Your task to perform on an android device: open app "Pinterest" (install if not already installed) Image 0: 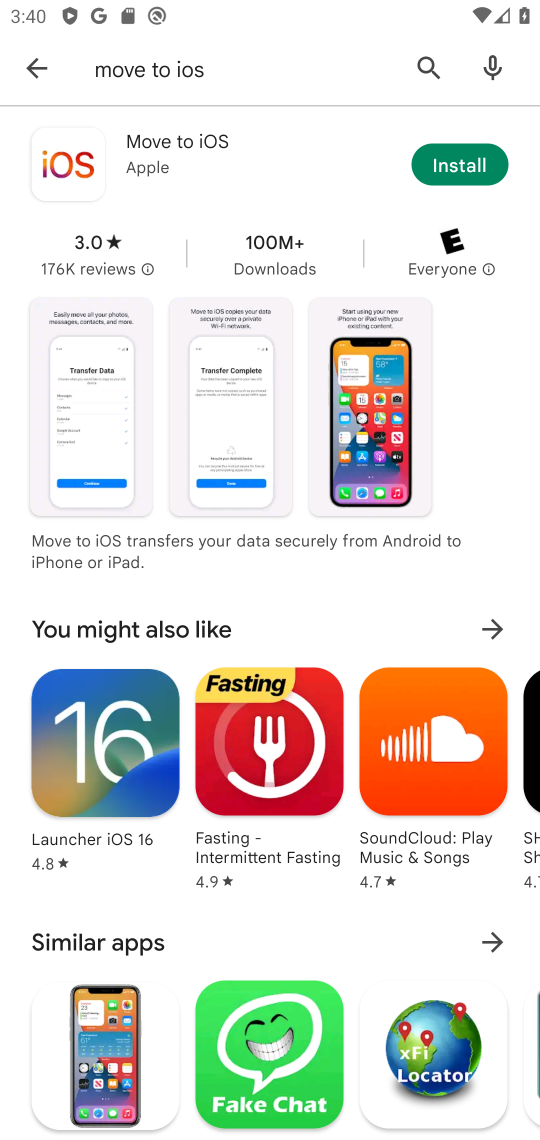
Step 0: press home button
Your task to perform on an android device: open app "Pinterest" (install if not already installed) Image 1: 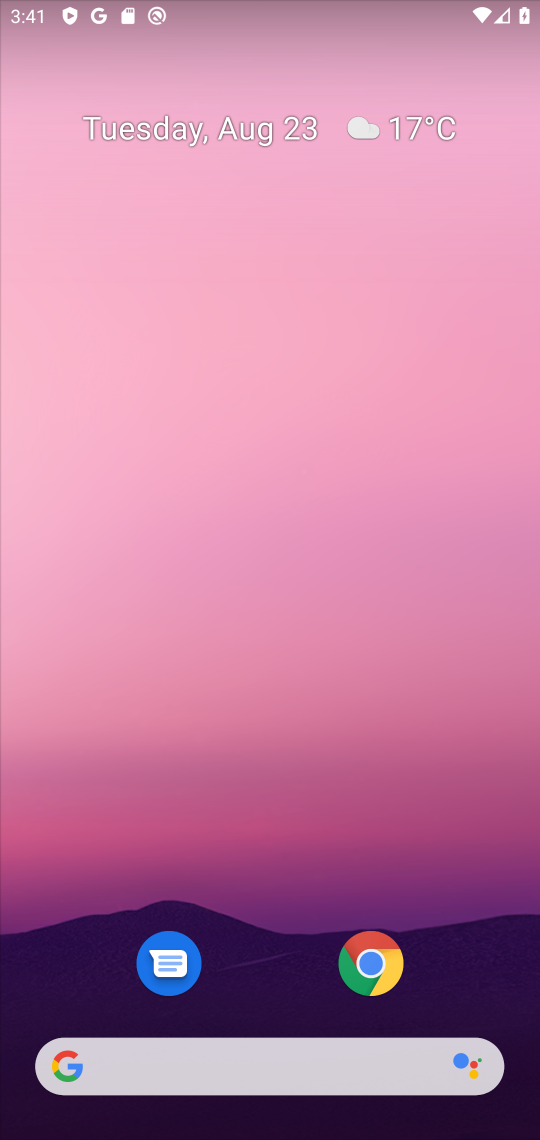
Step 1: drag from (288, 902) to (52, 8)
Your task to perform on an android device: open app "Pinterest" (install if not already installed) Image 2: 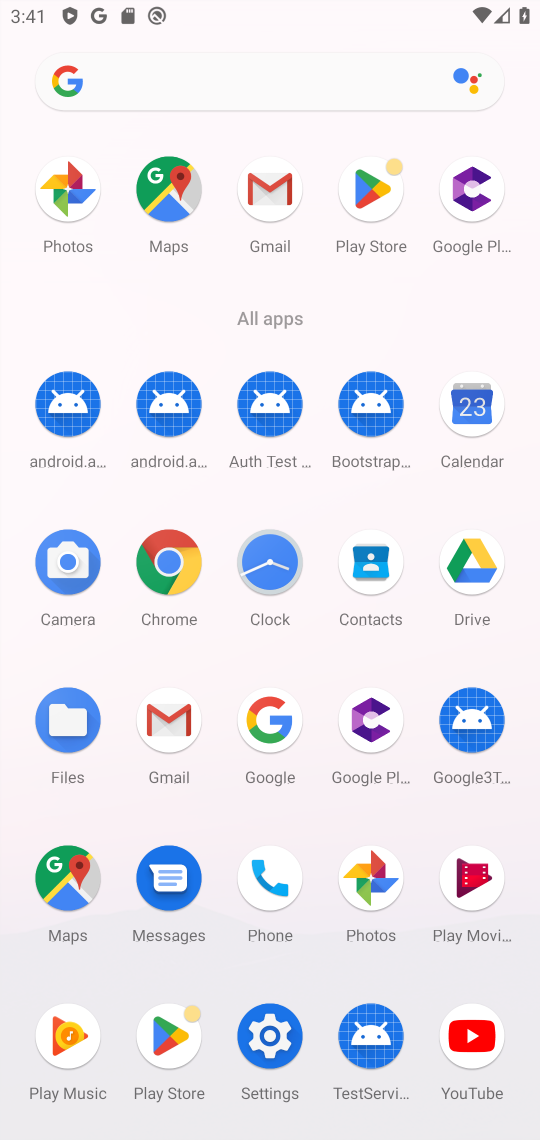
Step 2: click (366, 189)
Your task to perform on an android device: open app "Pinterest" (install if not already installed) Image 3: 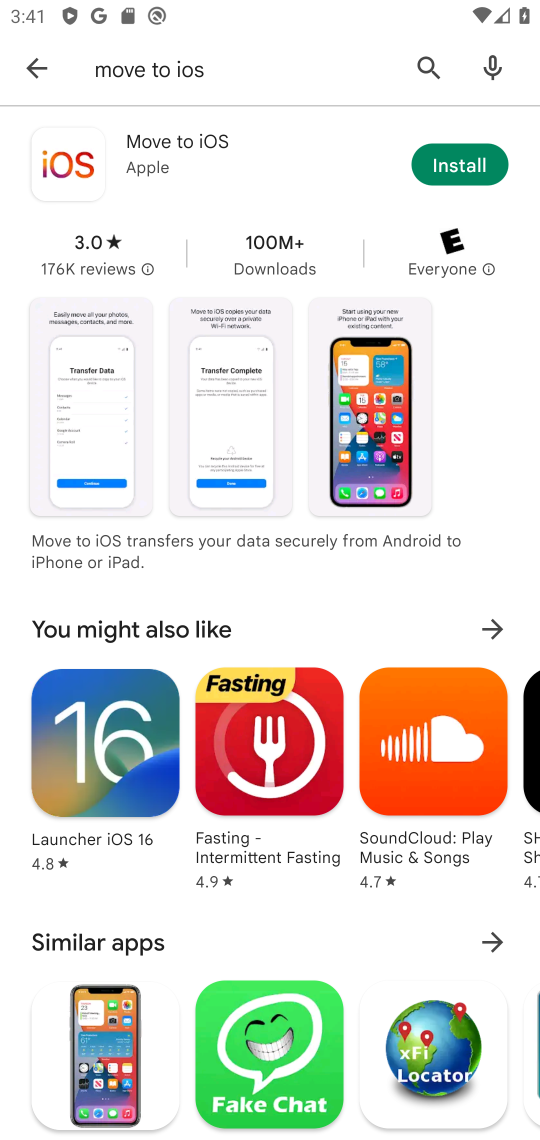
Step 3: click (421, 67)
Your task to perform on an android device: open app "Pinterest" (install if not already installed) Image 4: 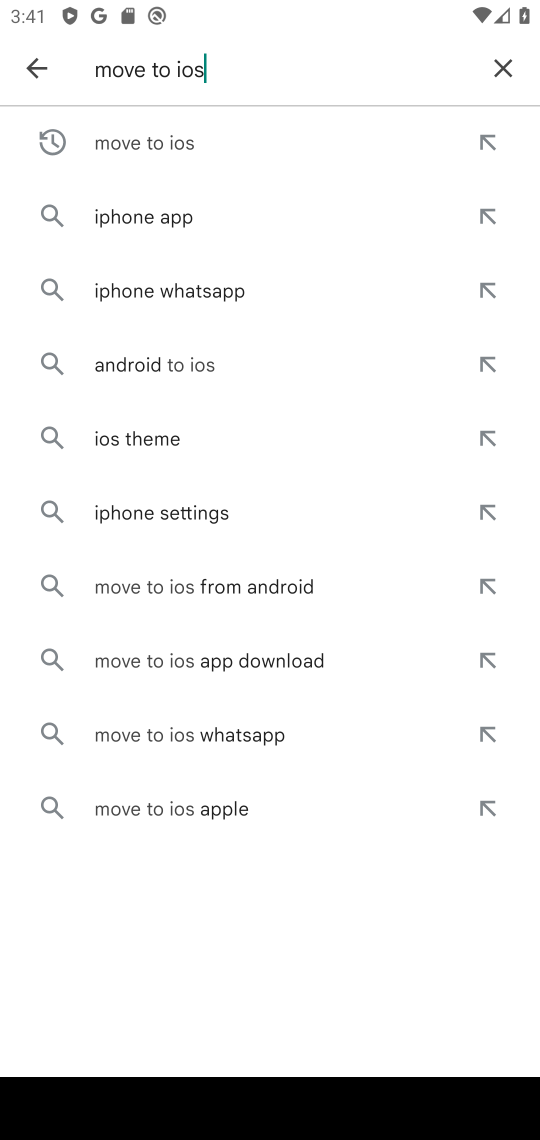
Step 4: click (496, 79)
Your task to perform on an android device: open app "Pinterest" (install if not already installed) Image 5: 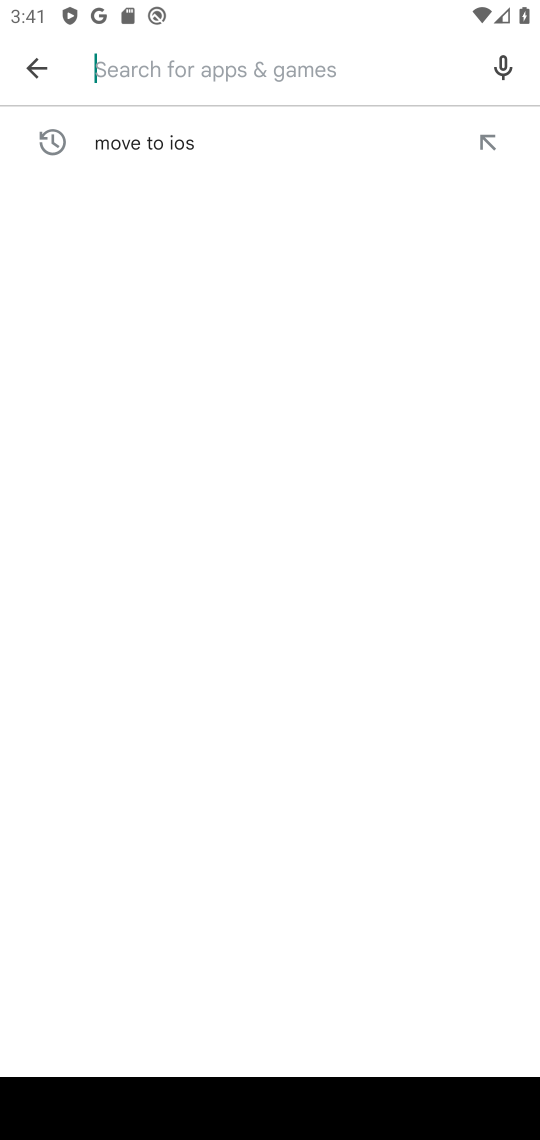
Step 5: type "Pinterest"
Your task to perform on an android device: open app "Pinterest" (install if not already installed) Image 6: 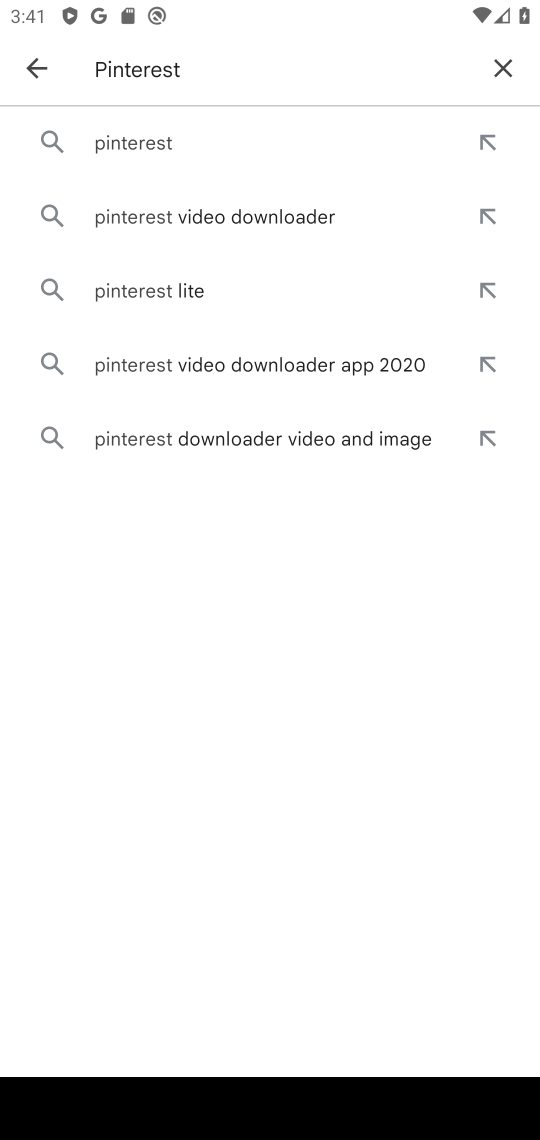
Step 6: click (99, 141)
Your task to perform on an android device: open app "Pinterest" (install if not already installed) Image 7: 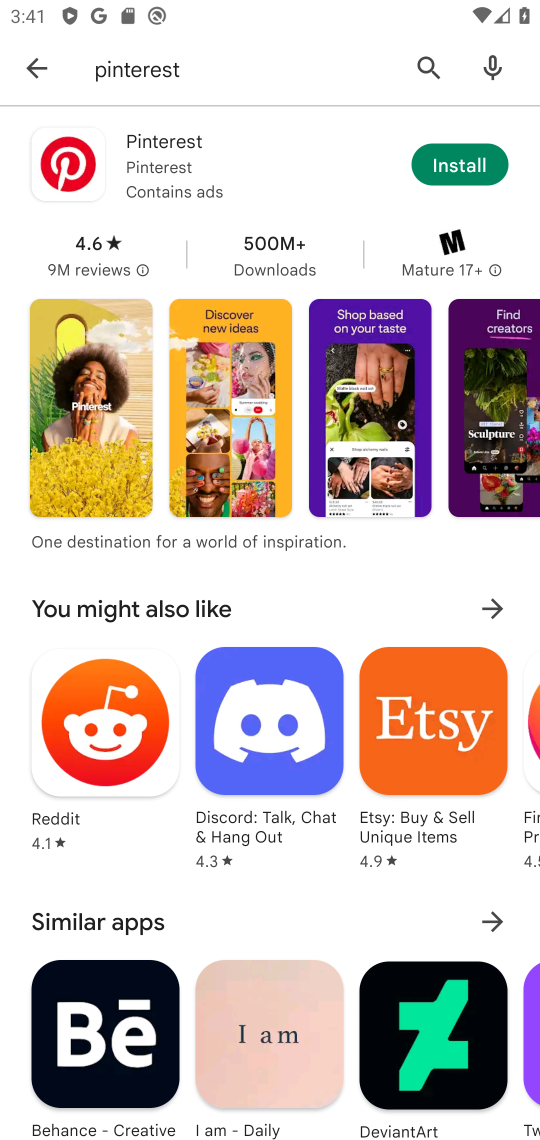
Step 7: click (440, 156)
Your task to perform on an android device: open app "Pinterest" (install if not already installed) Image 8: 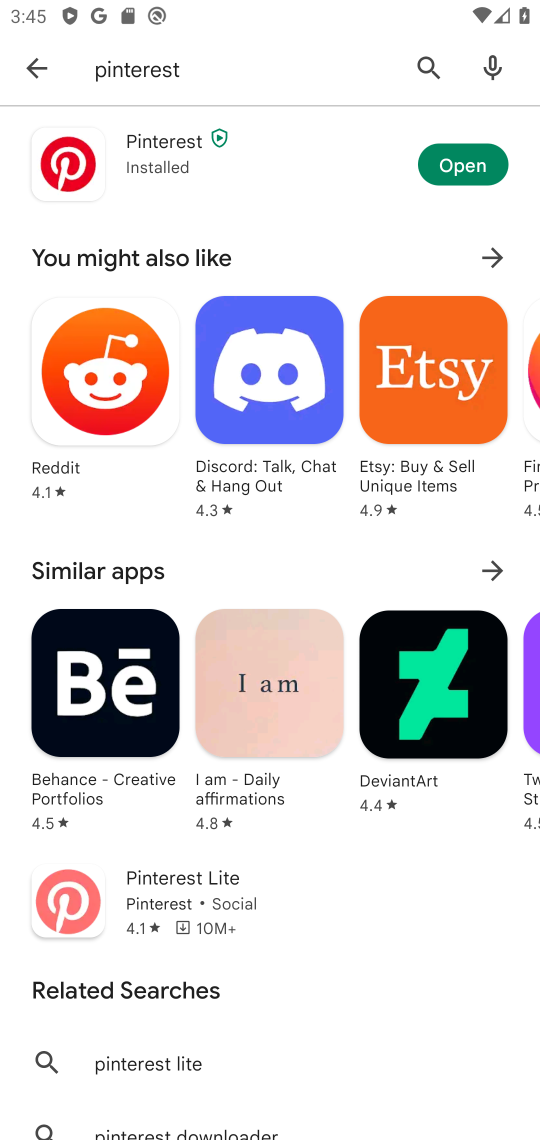
Step 8: click (453, 166)
Your task to perform on an android device: open app "Pinterest" (install if not already installed) Image 9: 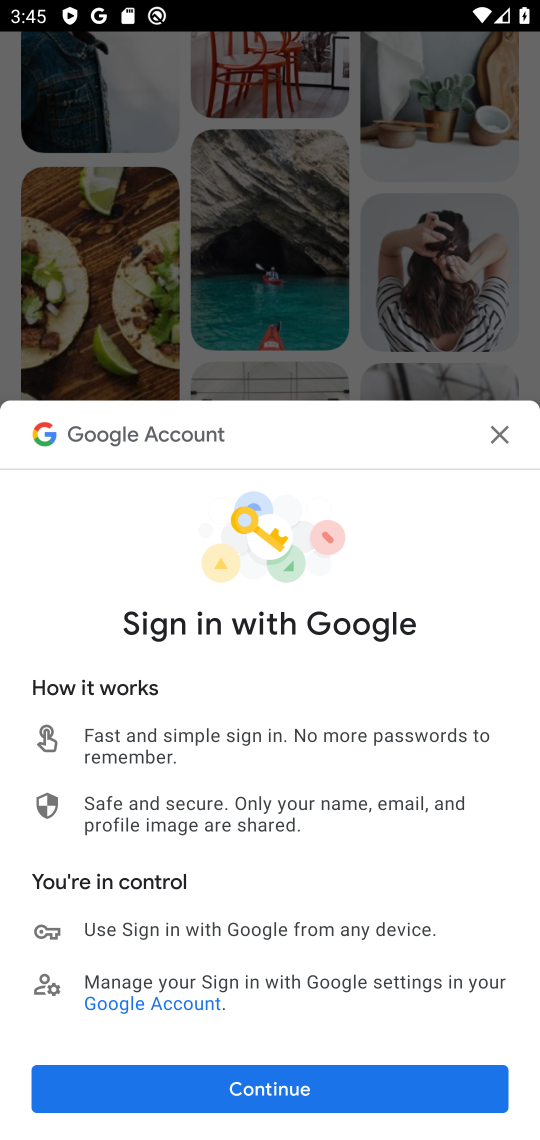
Step 9: click (281, 1095)
Your task to perform on an android device: open app "Pinterest" (install if not already installed) Image 10: 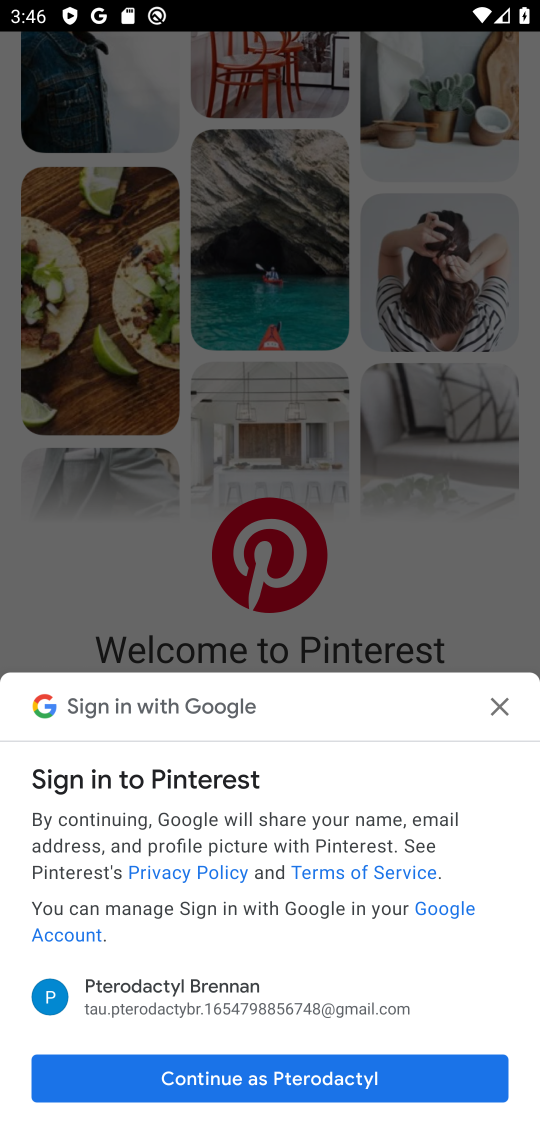
Step 10: click (284, 1086)
Your task to perform on an android device: open app "Pinterest" (install if not already installed) Image 11: 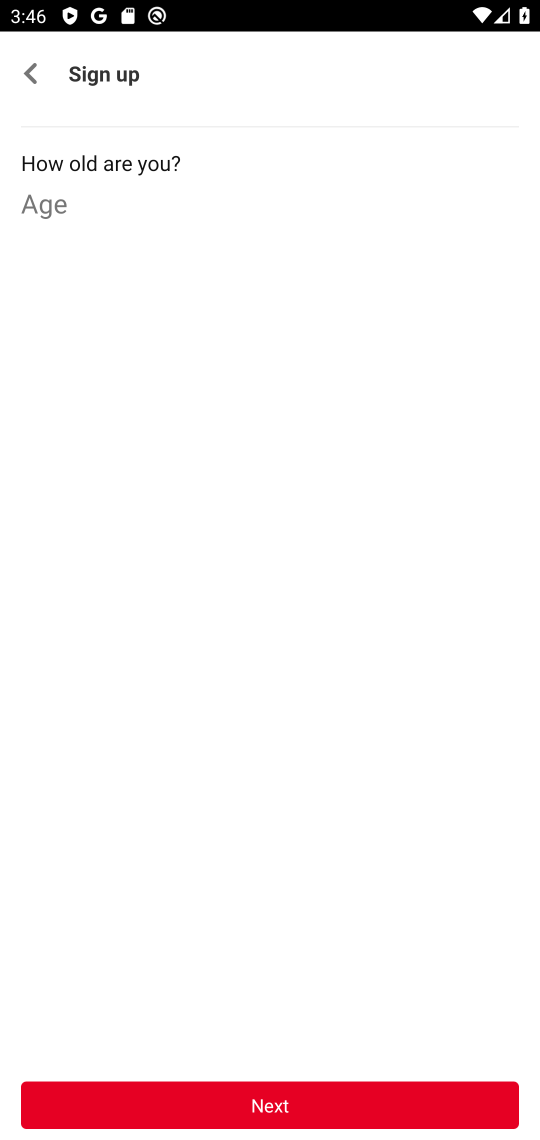
Step 11: click (287, 1107)
Your task to perform on an android device: open app "Pinterest" (install if not already installed) Image 12: 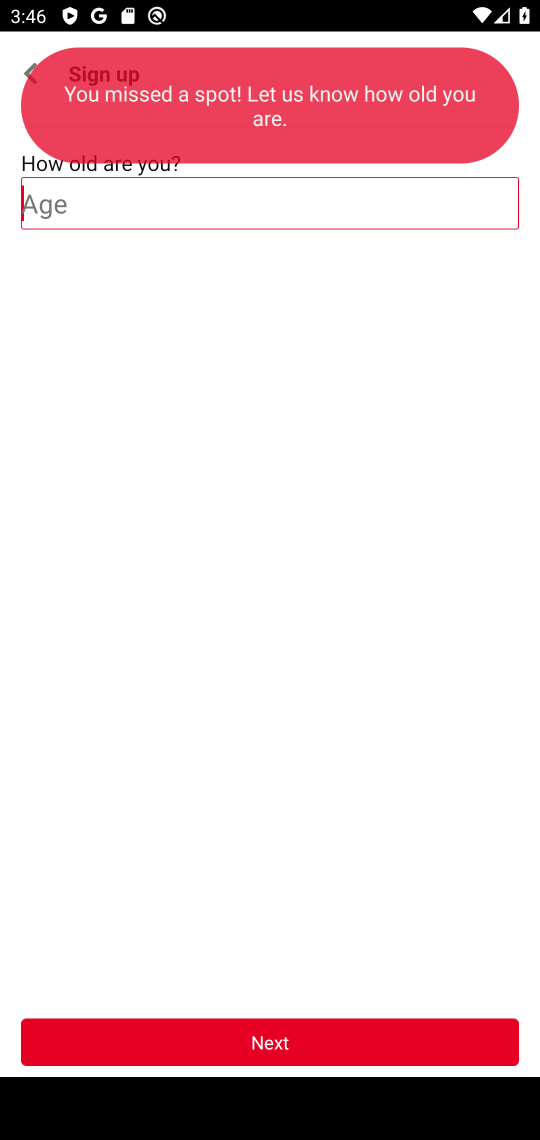
Step 12: type "24"
Your task to perform on an android device: open app "Pinterest" (install if not already installed) Image 13: 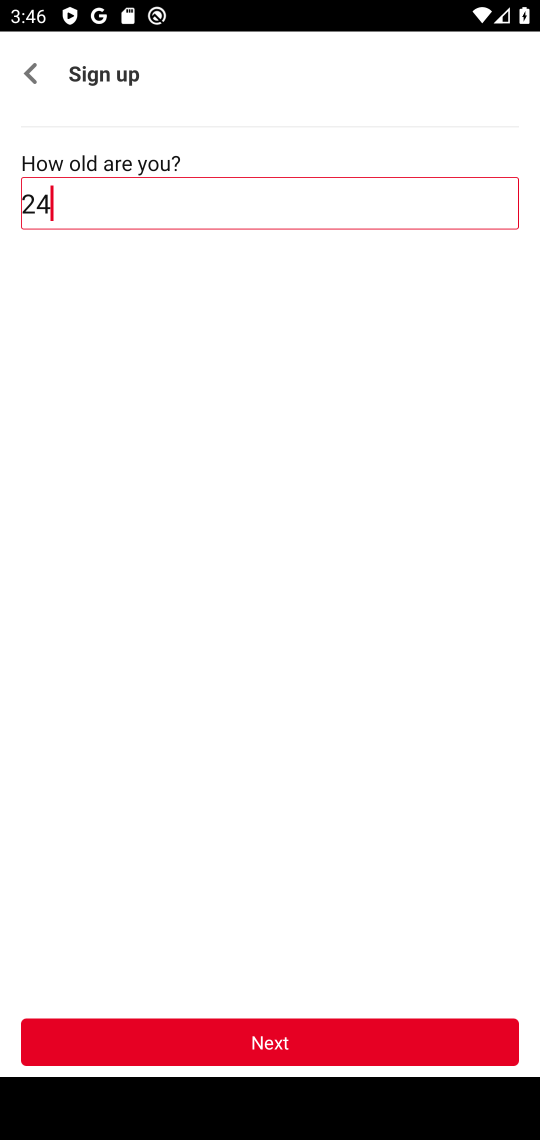
Step 13: click (215, 1035)
Your task to perform on an android device: open app "Pinterest" (install if not already installed) Image 14: 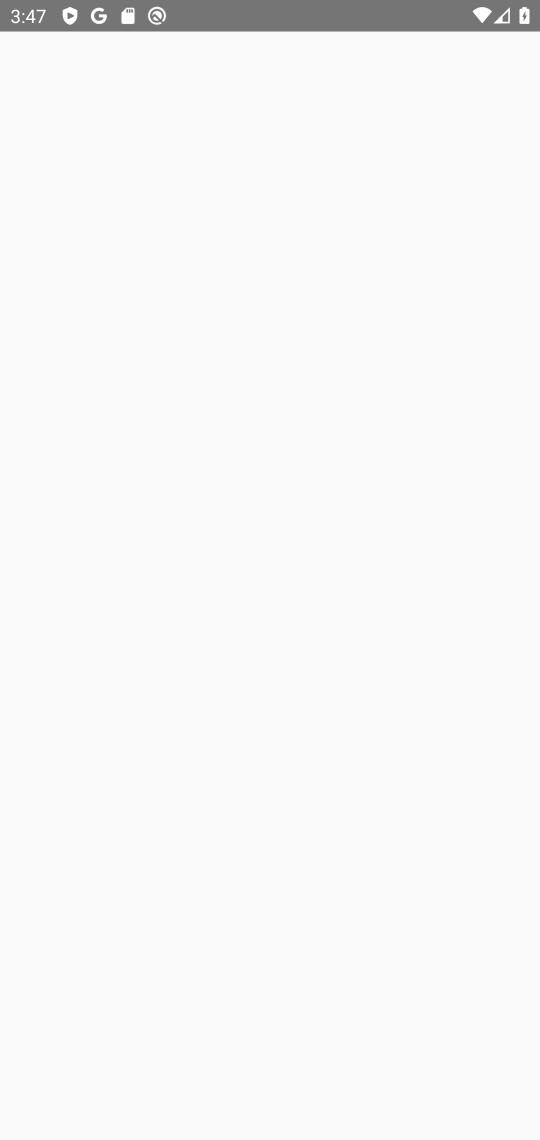
Step 14: task complete